Your task to perform on an android device: Search for Mexican restaurants on Maps Image 0: 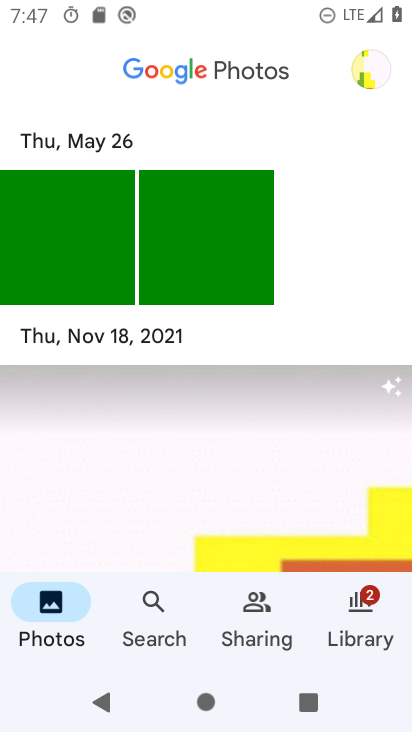
Step 0: press home button
Your task to perform on an android device: Search for Mexican restaurants on Maps Image 1: 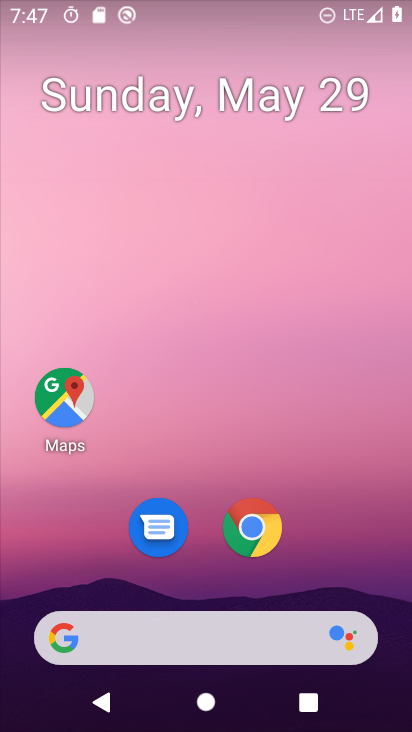
Step 1: drag from (392, 627) to (344, 82)
Your task to perform on an android device: Search for Mexican restaurants on Maps Image 2: 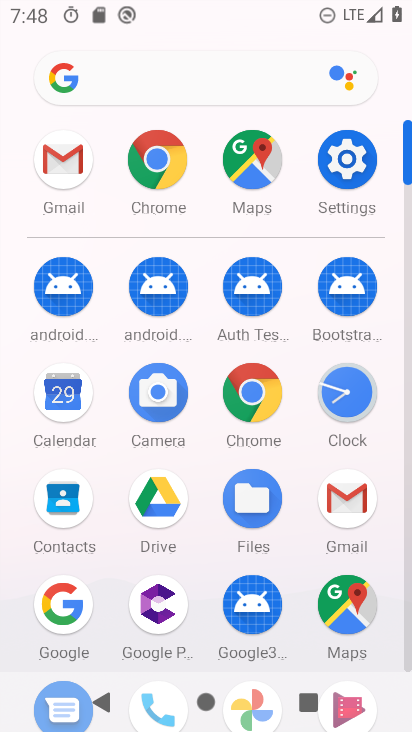
Step 2: click (343, 592)
Your task to perform on an android device: Search for Mexican restaurants on Maps Image 3: 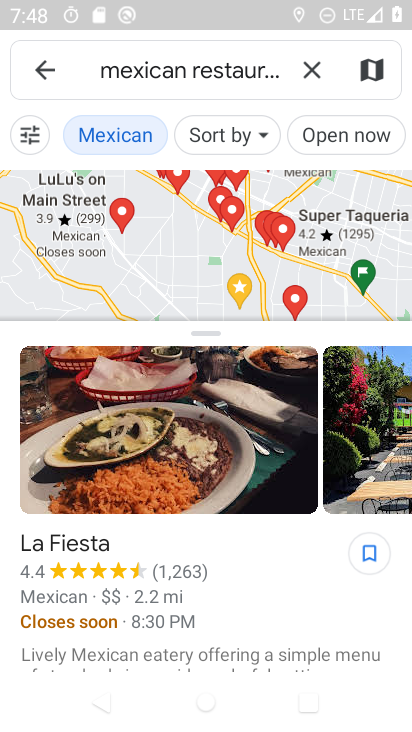
Step 3: task complete